Your task to perform on an android device: Search for a small bookcase on Ikea.com Image 0: 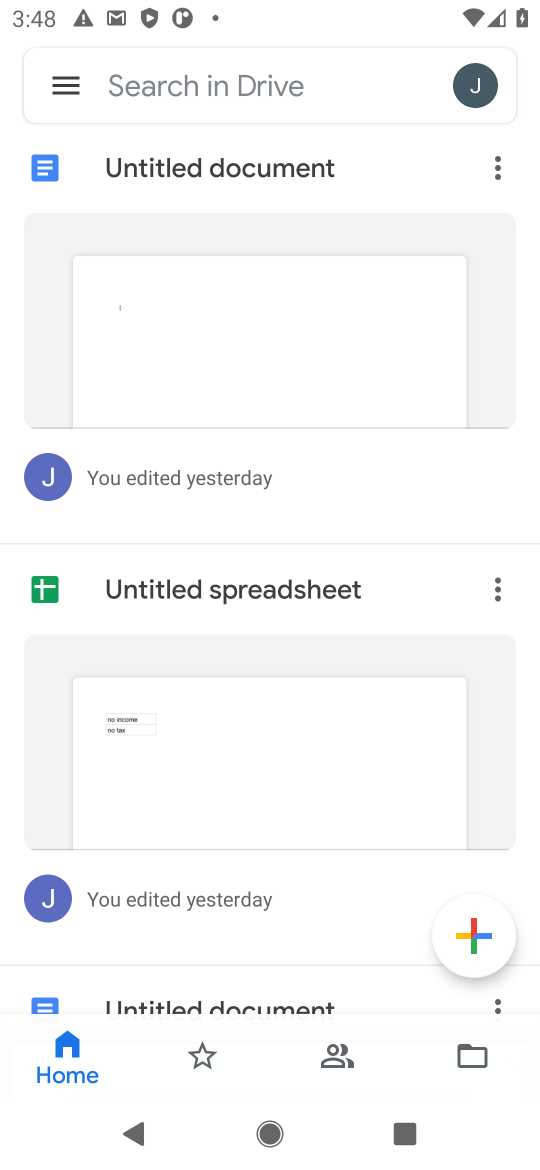
Step 0: press home button
Your task to perform on an android device: Search for a small bookcase on Ikea.com Image 1: 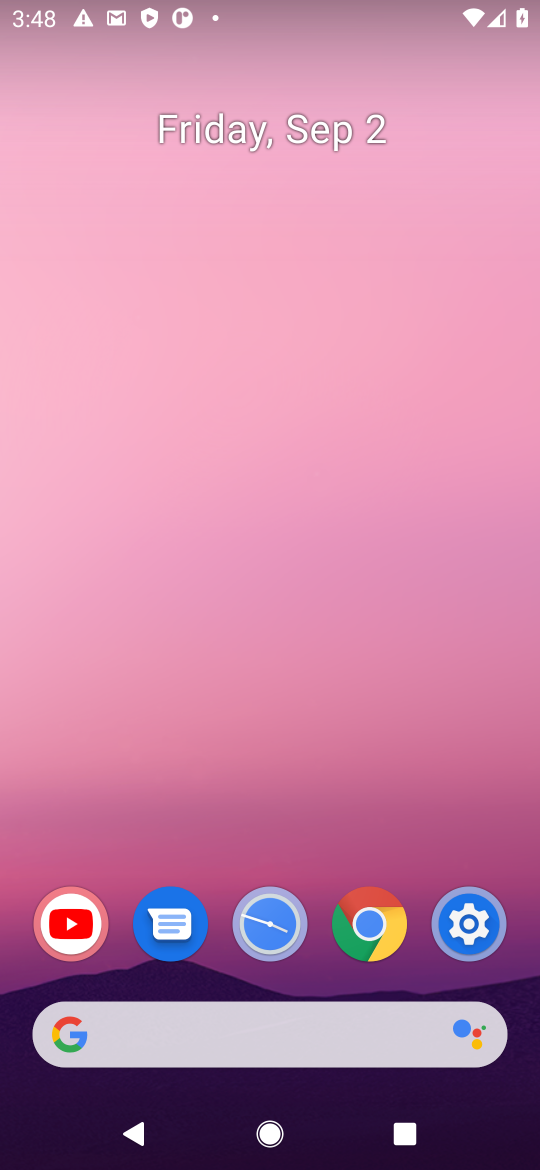
Step 1: click (388, 1045)
Your task to perform on an android device: Search for a small bookcase on Ikea.com Image 2: 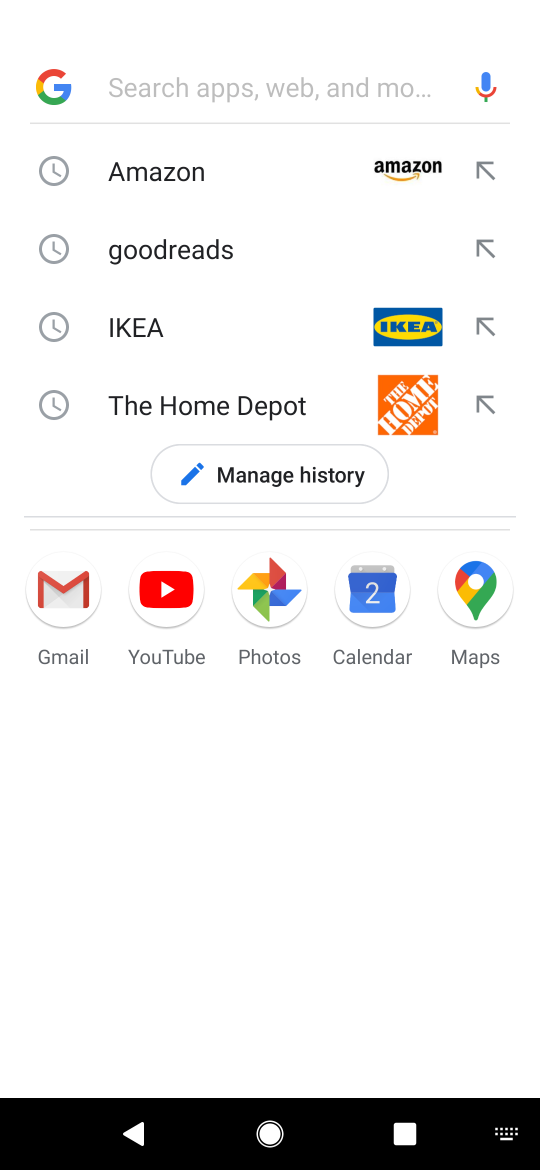
Step 2: press enter
Your task to perform on an android device: Search for a small bookcase on Ikea.com Image 3: 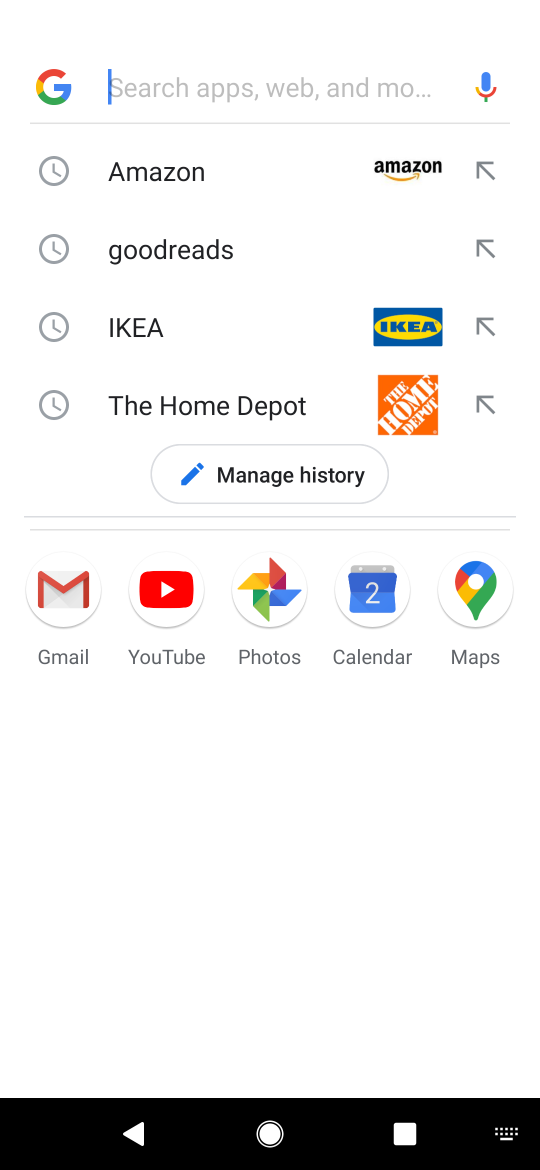
Step 3: type "lkea.com"
Your task to perform on an android device: Search for a small bookcase on Ikea.com Image 4: 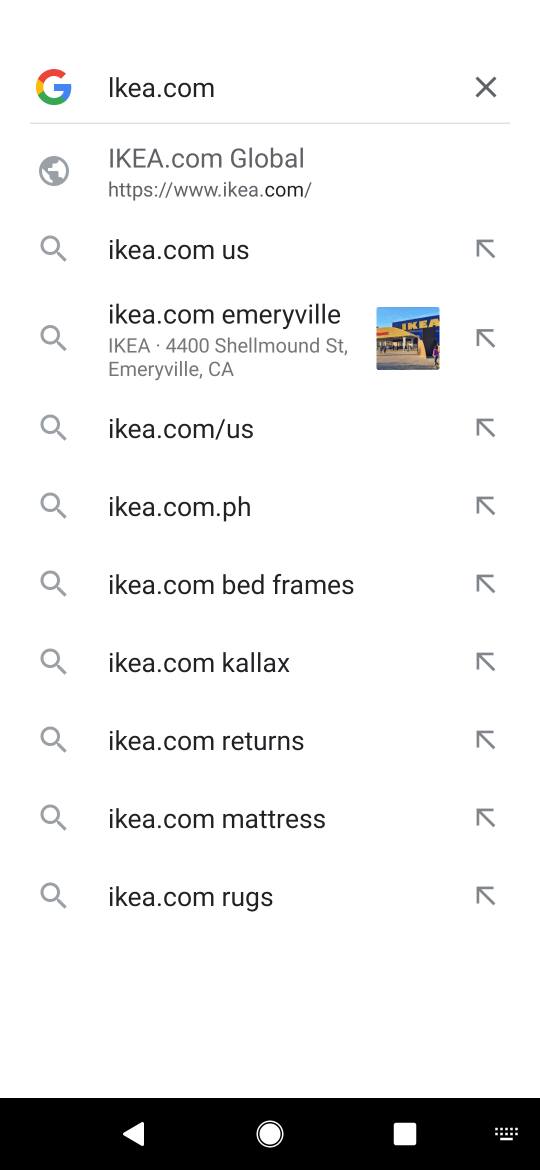
Step 4: click (234, 162)
Your task to perform on an android device: Search for a small bookcase on Ikea.com Image 5: 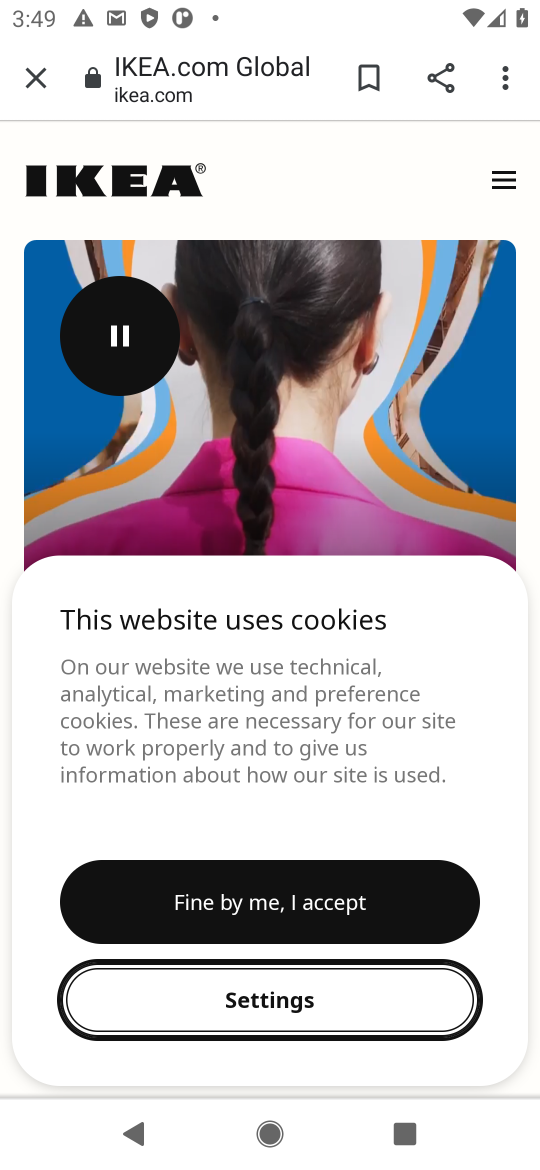
Step 5: click (273, 898)
Your task to perform on an android device: Search for a small bookcase on Ikea.com Image 6: 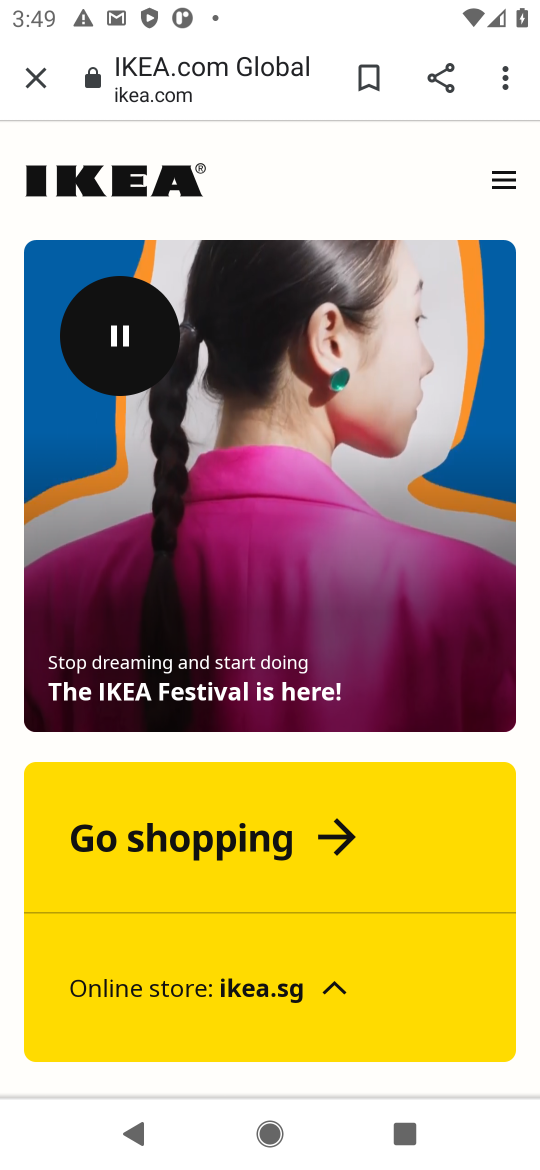
Step 6: task complete